Your task to perform on an android device: add a label to a message in the gmail app Image 0: 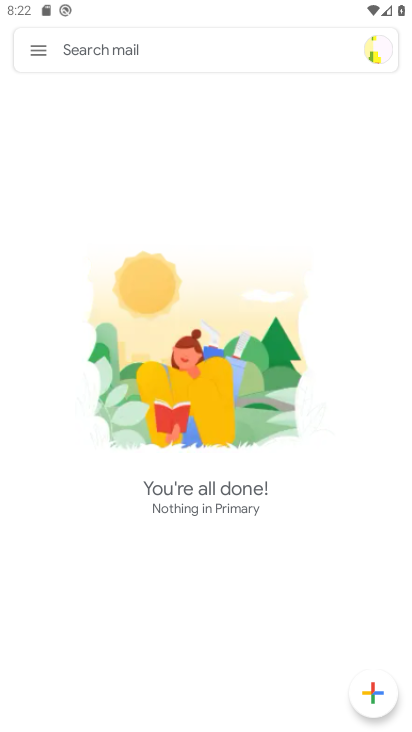
Step 0: press home button
Your task to perform on an android device: add a label to a message in the gmail app Image 1: 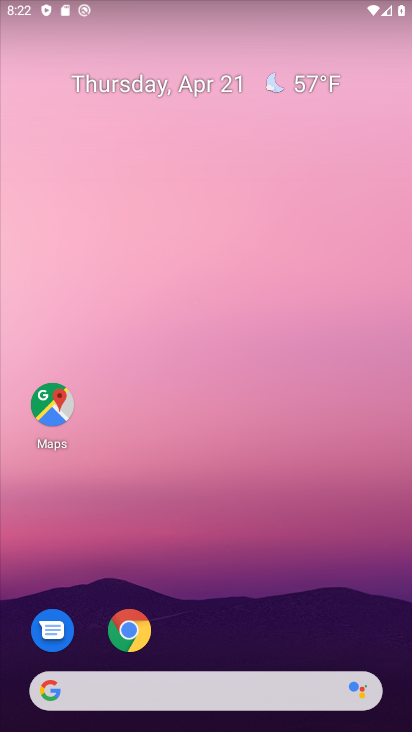
Step 1: drag from (282, 607) to (244, 63)
Your task to perform on an android device: add a label to a message in the gmail app Image 2: 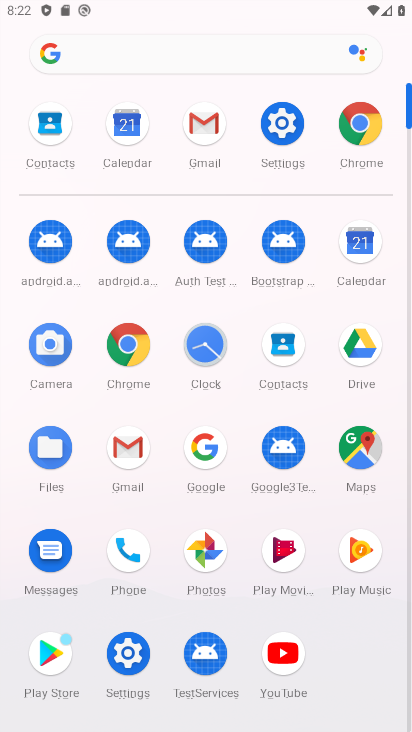
Step 2: click (211, 117)
Your task to perform on an android device: add a label to a message in the gmail app Image 3: 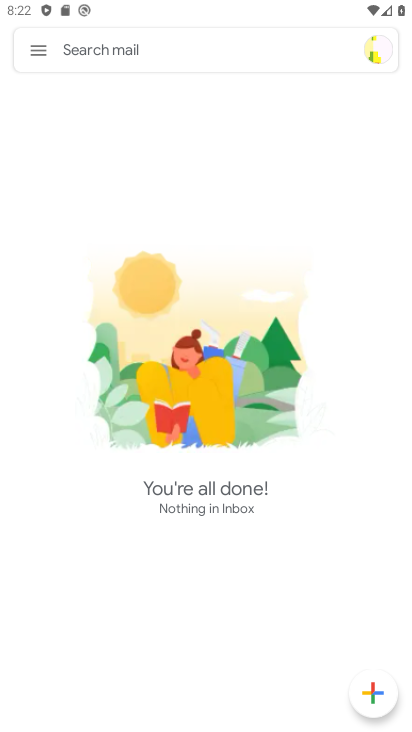
Step 3: task complete